Your task to perform on an android device: set an alarm Image 0: 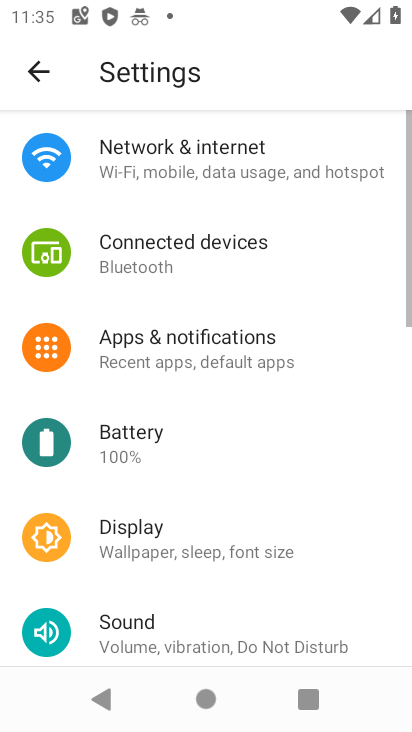
Step 0: press home button
Your task to perform on an android device: set an alarm Image 1: 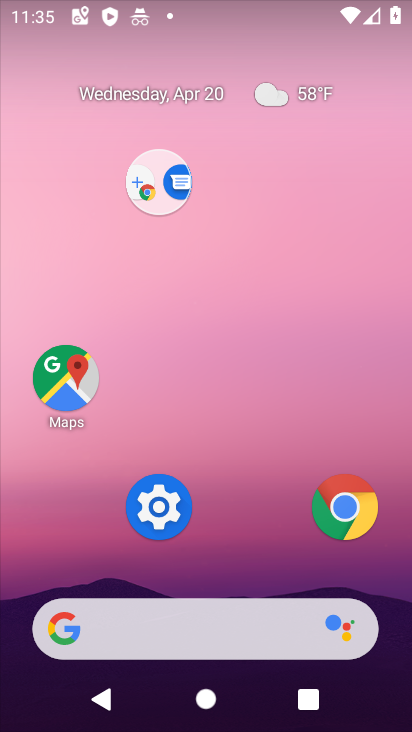
Step 1: drag from (296, 472) to (175, 161)
Your task to perform on an android device: set an alarm Image 2: 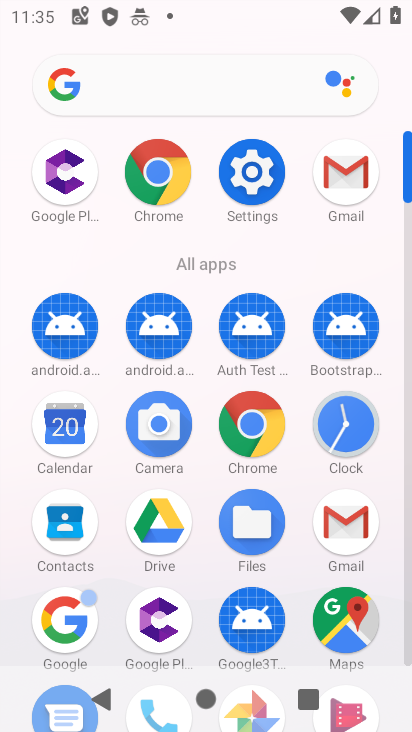
Step 2: click (360, 421)
Your task to perform on an android device: set an alarm Image 3: 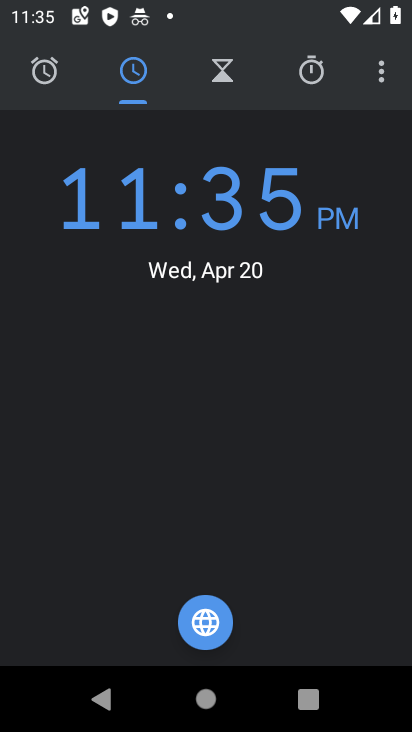
Step 3: click (376, 72)
Your task to perform on an android device: set an alarm Image 4: 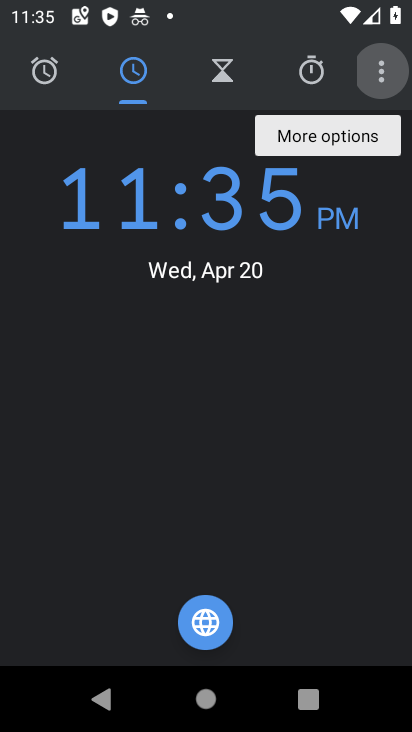
Step 4: click (86, 324)
Your task to perform on an android device: set an alarm Image 5: 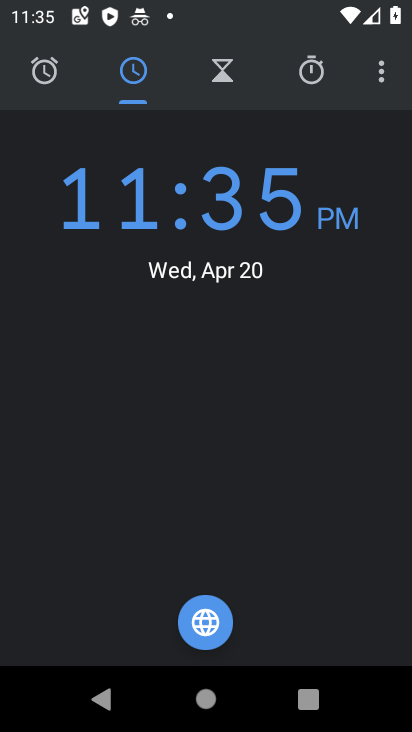
Step 5: click (44, 70)
Your task to perform on an android device: set an alarm Image 6: 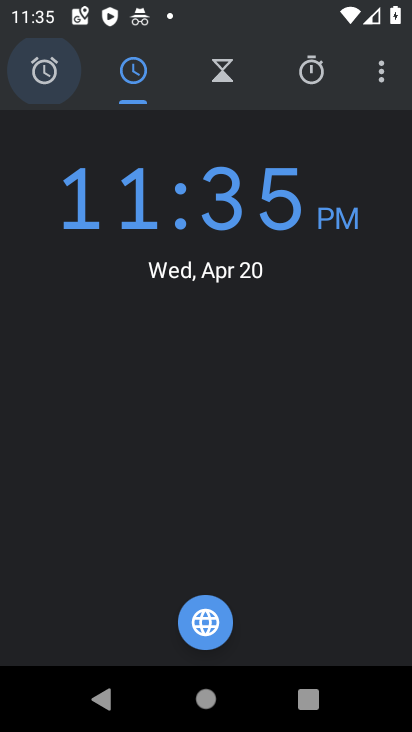
Step 6: click (44, 70)
Your task to perform on an android device: set an alarm Image 7: 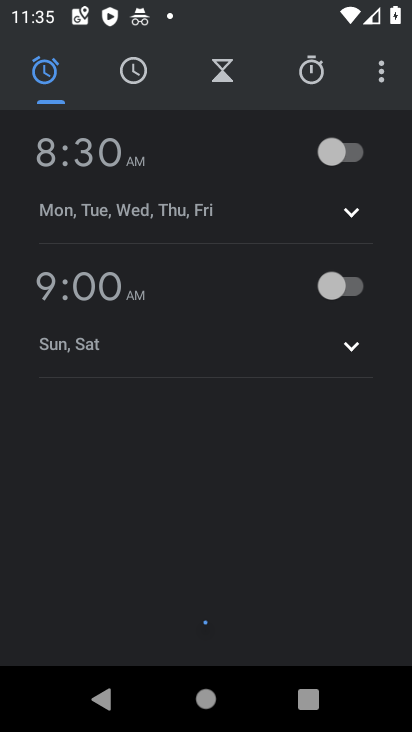
Step 7: click (44, 70)
Your task to perform on an android device: set an alarm Image 8: 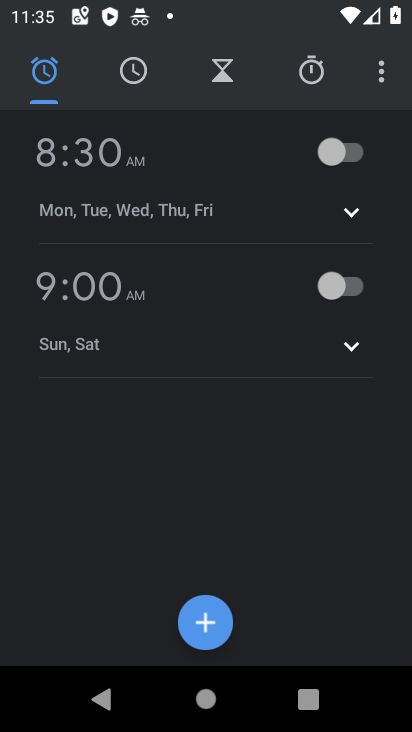
Step 8: click (341, 150)
Your task to perform on an android device: set an alarm Image 9: 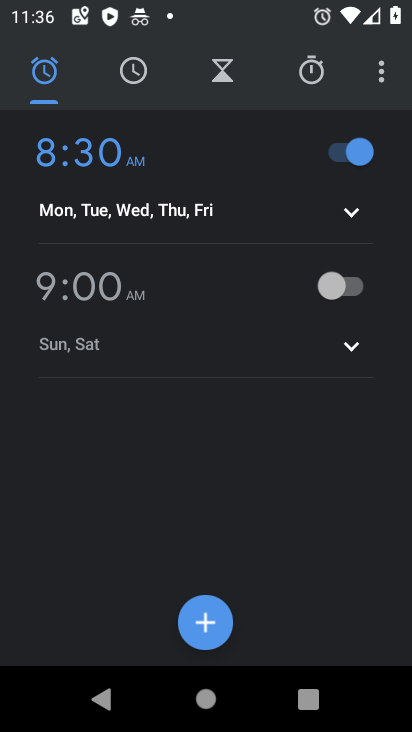
Step 9: task complete